Your task to perform on an android device: Open the calendar app, open the side menu, and click the "Day" option Image 0: 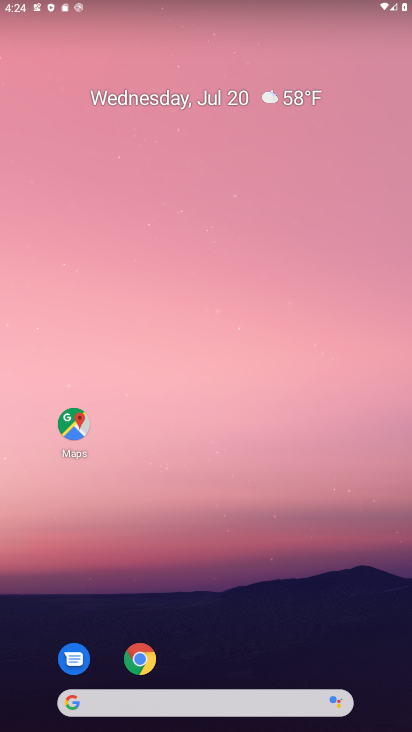
Step 0: drag from (213, 315) to (211, 223)
Your task to perform on an android device: Open the calendar app, open the side menu, and click the "Day" option Image 1: 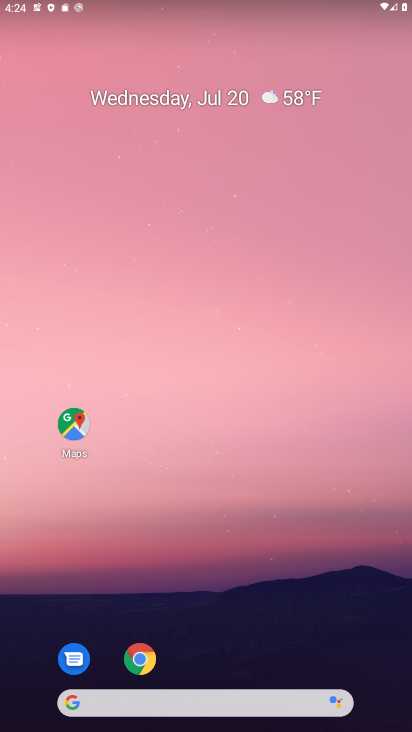
Step 1: drag from (197, 538) to (156, 174)
Your task to perform on an android device: Open the calendar app, open the side menu, and click the "Day" option Image 2: 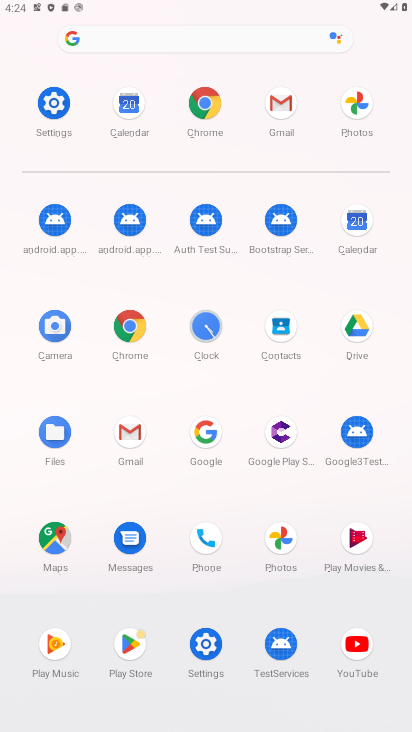
Step 2: click (350, 214)
Your task to perform on an android device: Open the calendar app, open the side menu, and click the "Day" option Image 3: 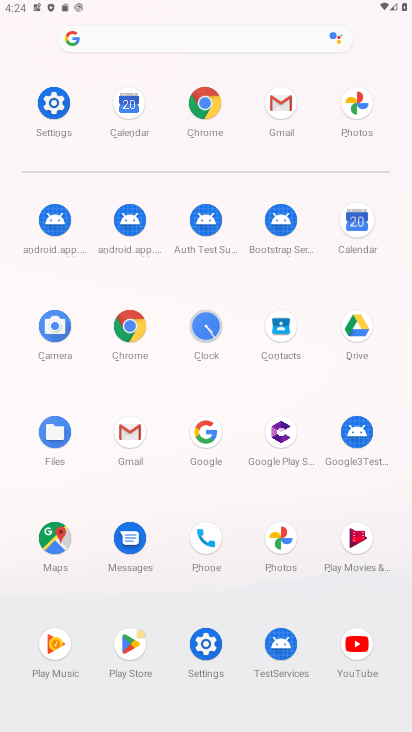
Step 3: click (350, 214)
Your task to perform on an android device: Open the calendar app, open the side menu, and click the "Day" option Image 4: 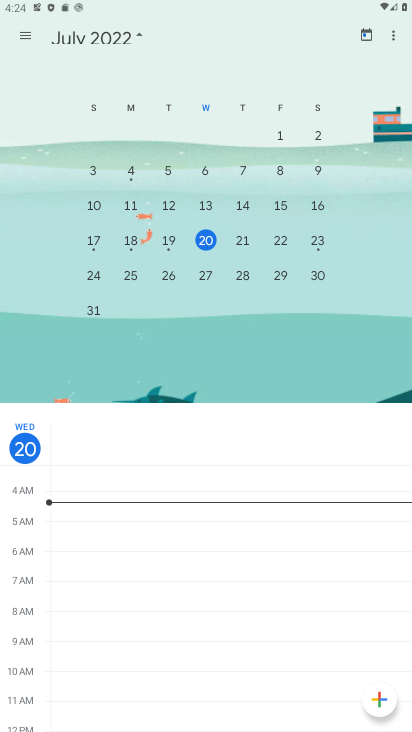
Step 4: click (20, 23)
Your task to perform on an android device: Open the calendar app, open the side menu, and click the "Day" option Image 5: 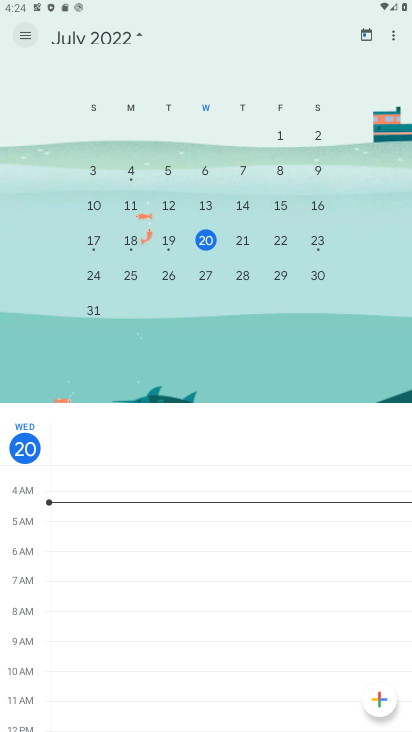
Step 5: click (20, 27)
Your task to perform on an android device: Open the calendar app, open the side menu, and click the "Day" option Image 6: 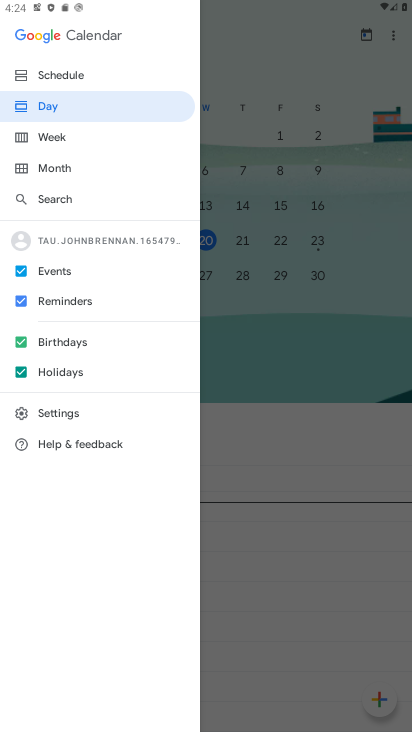
Step 6: click (51, 104)
Your task to perform on an android device: Open the calendar app, open the side menu, and click the "Day" option Image 7: 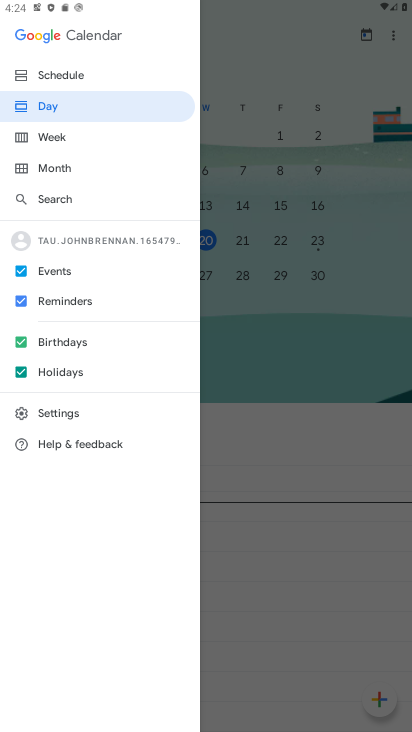
Step 7: click (52, 105)
Your task to perform on an android device: Open the calendar app, open the side menu, and click the "Day" option Image 8: 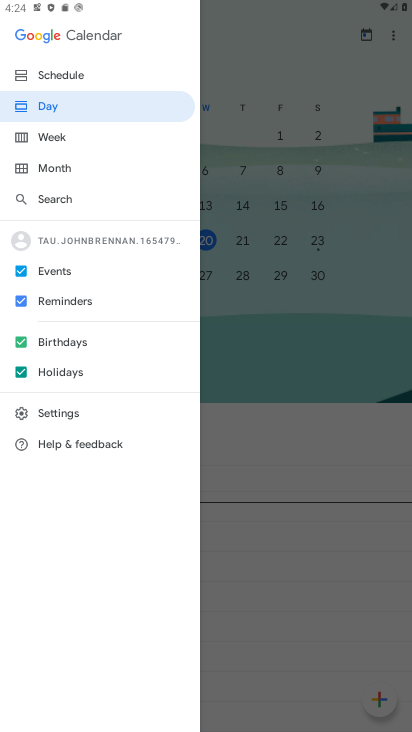
Step 8: click (148, 102)
Your task to perform on an android device: Open the calendar app, open the side menu, and click the "Day" option Image 9: 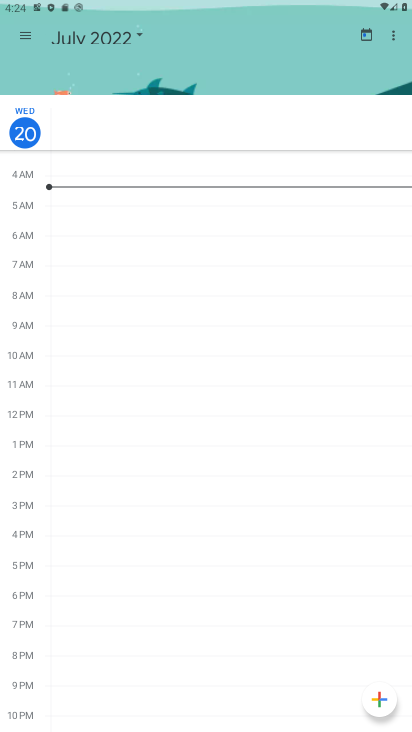
Step 9: task complete